Your task to perform on an android device: clear history in the chrome app Image 0: 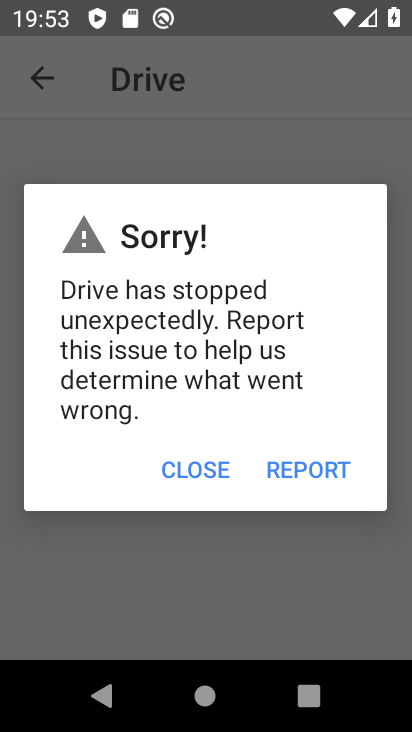
Step 0: press home button
Your task to perform on an android device: clear history in the chrome app Image 1: 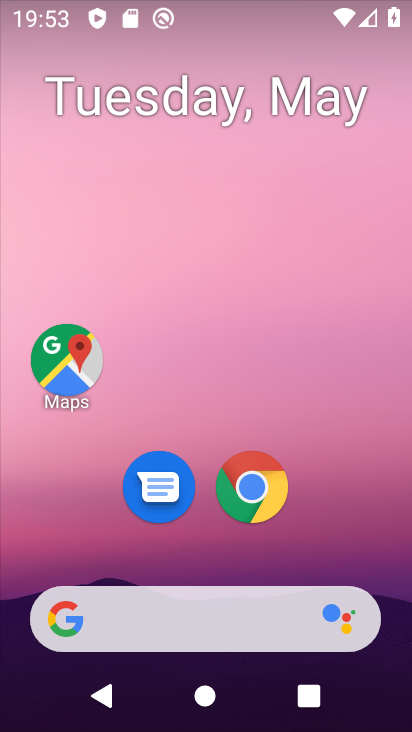
Step 1: click (281, 478)
Your task to perform on an android device: clear history in the chrome app Image 2: 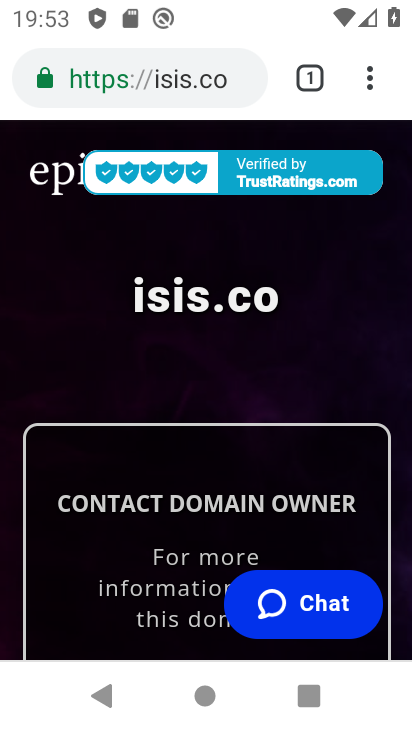
Step 2: click (372, 92)
Your task to perform on an android device: clear history in the chrome app Image 3: 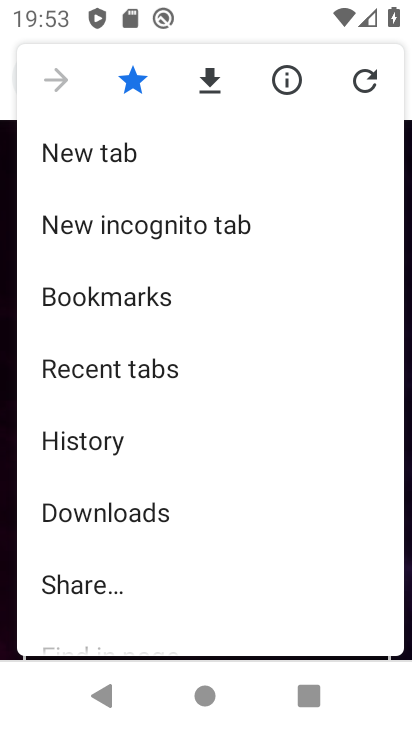
Step 3: drag from (258, 521) to (253, 277)
Your task to perform on an android device: clear history in the chrome app Image 4: 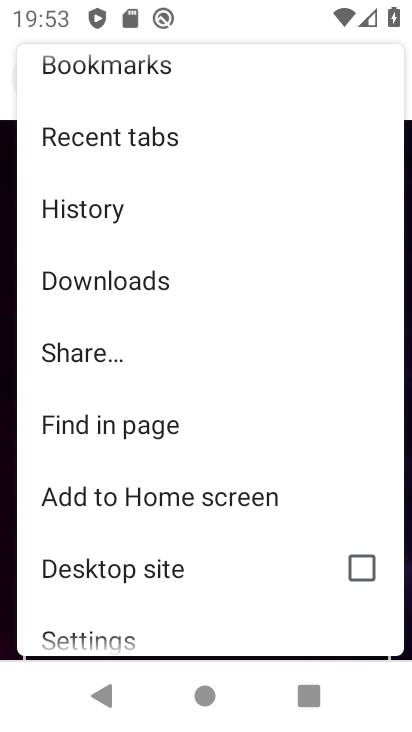
Step 4: click (184, 628)
Your task to perform on an android device: clear history in the chrome app Image 5: 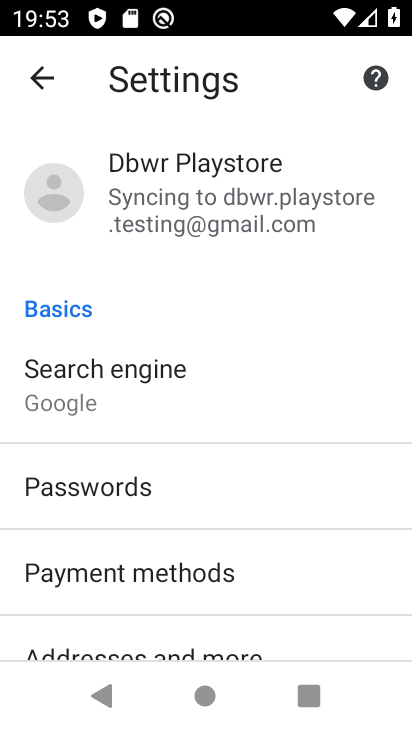
Step 5: click (30, 75)
Your task to perform on an android device: clear history in the chrome app Image 6: 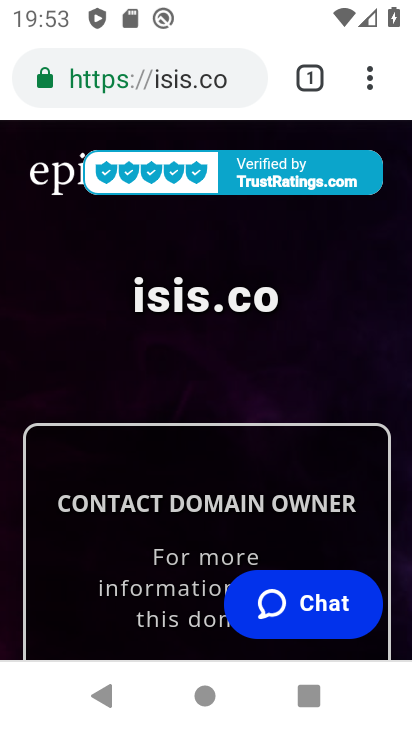
Step 6: click (380, 67)
Your task to perform on an android device: clear history in the chrome app Image 7: 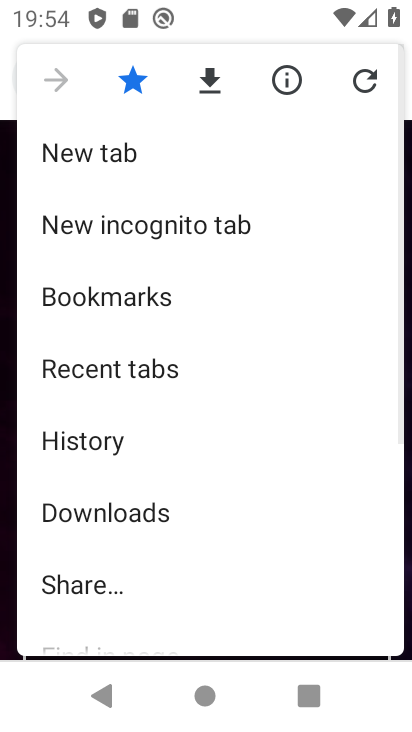
Step 7: click (170, 442)
Your task to perform on an android device: clear history in the chrome app Image 8: 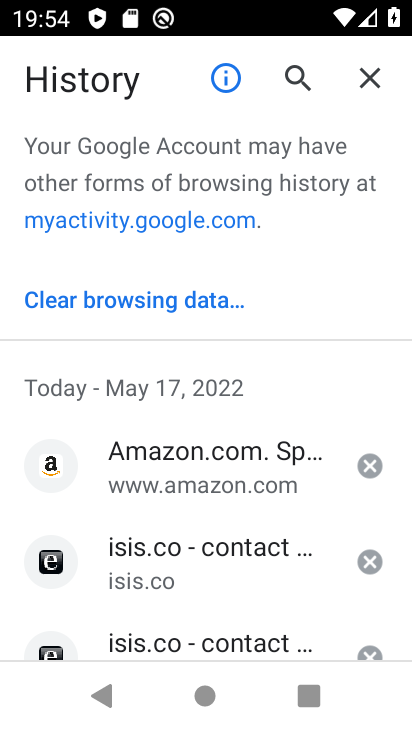
Step 8: click (194, 310)
Your task to perform on an android device: clear history in the chrome app Image 9: 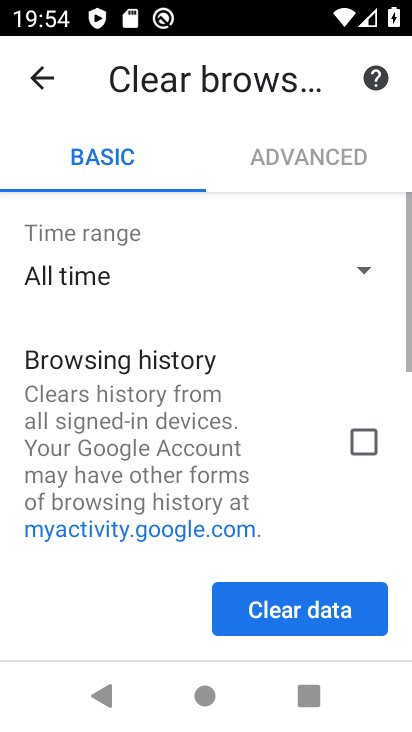
Step 9: click (324, 440)
Your task to perform on an android device: clear history in the chrome app Image 10: 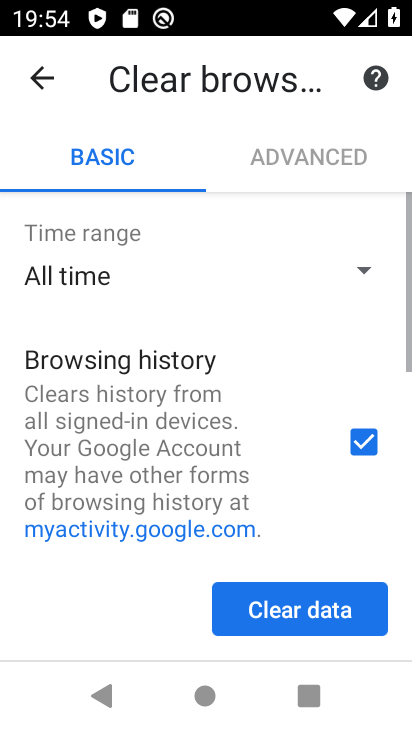
Step 10: click (327, 621)
Your task to perform on an android device: clear history in the chrome app Image 11: 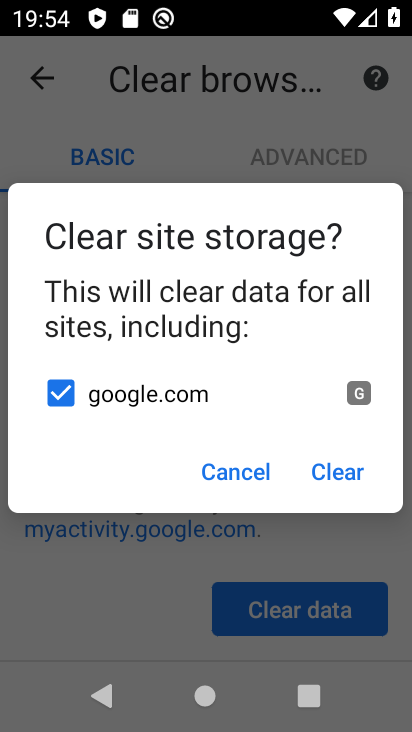
Step 11: click (338, 483)
Your task to perform on an android device: clear history in the chrome app Image 12: 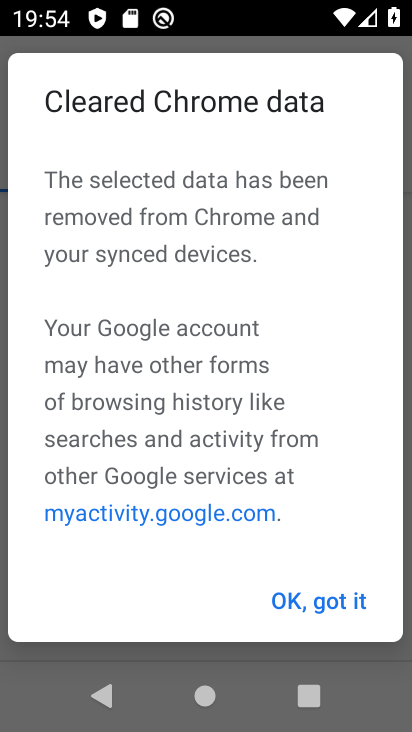
Step 12: click (319, 616)
Your task to perform on an android device: clear history in the chrome app Image 13: 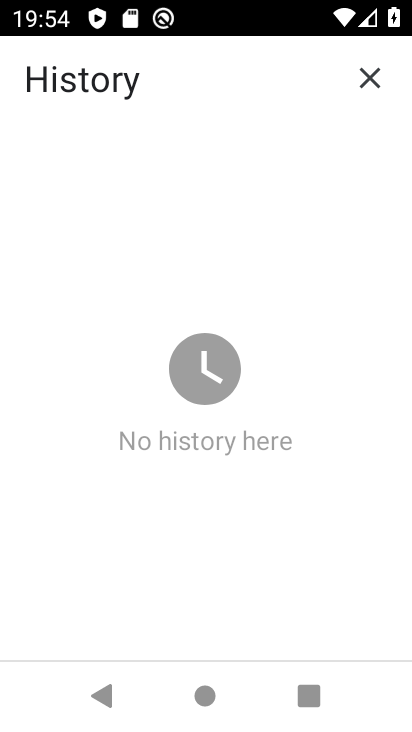
Step 13: task complete